Your task to perform on an android device: Search for hotels in Tokyo Image 0: 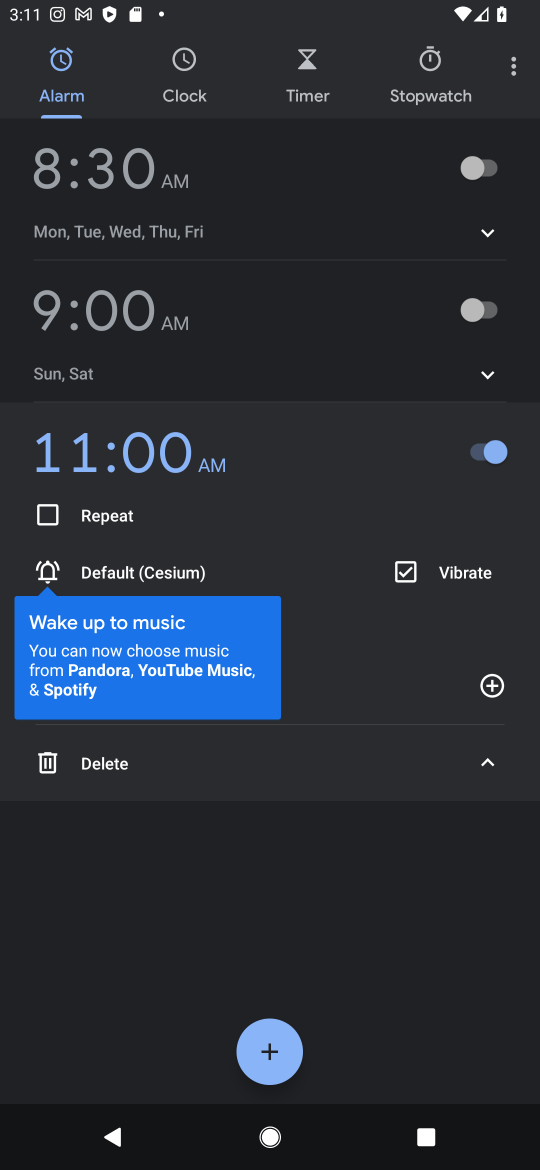
Step 0: press home button
Your task to perform on an android device: Search for hotels in Tokyo Image 1: 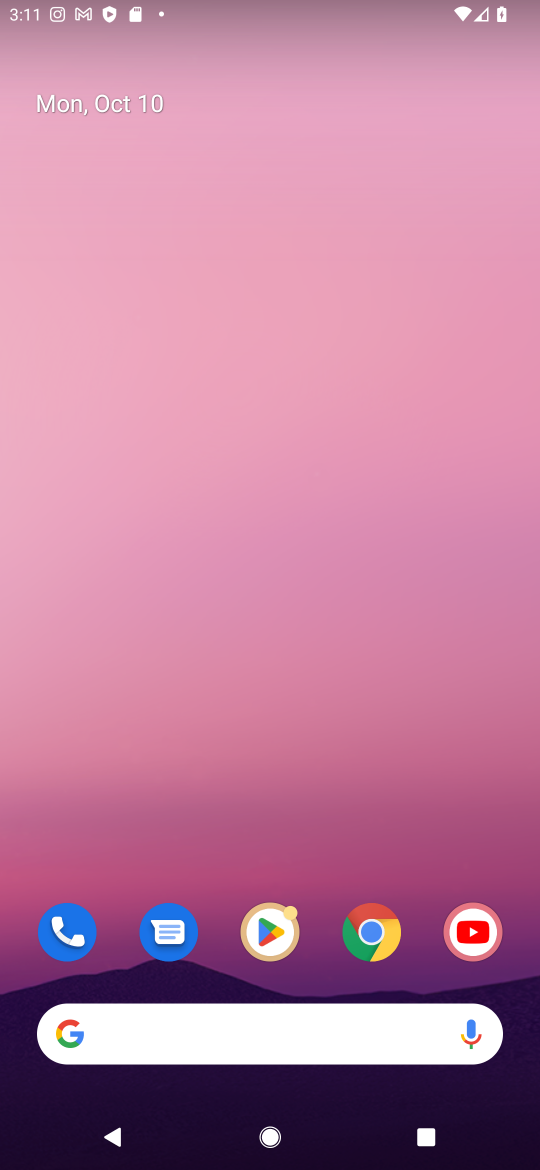
Step 1: click (295, 1038)
Your task to perform on an android device: Search for hotels in Tokyo Image 2: 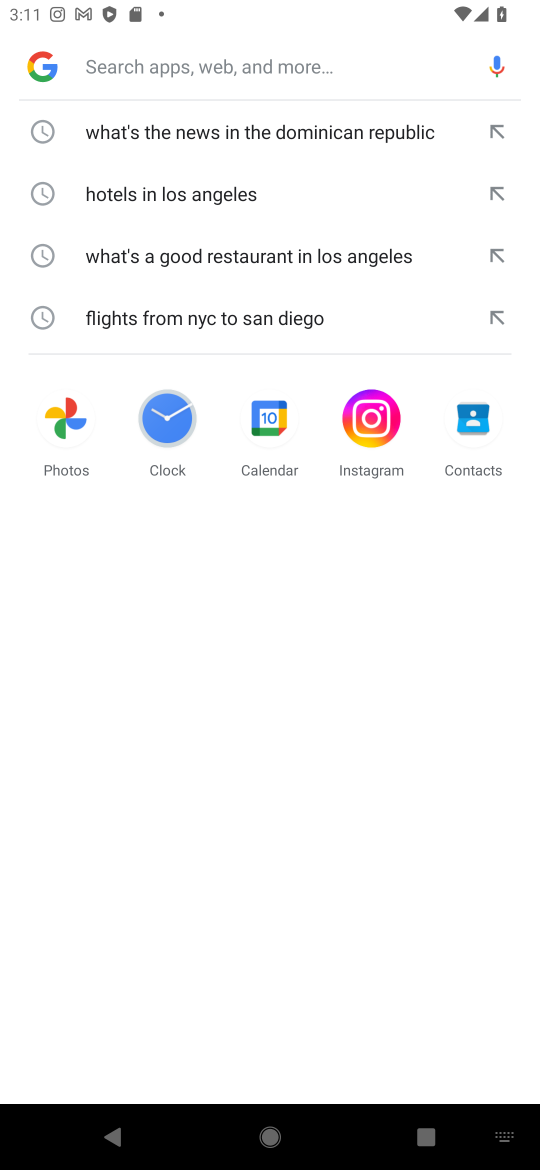
Step 2: press enter
Your task to perform on an android device: Search for hotels in Tokyo Image 3: 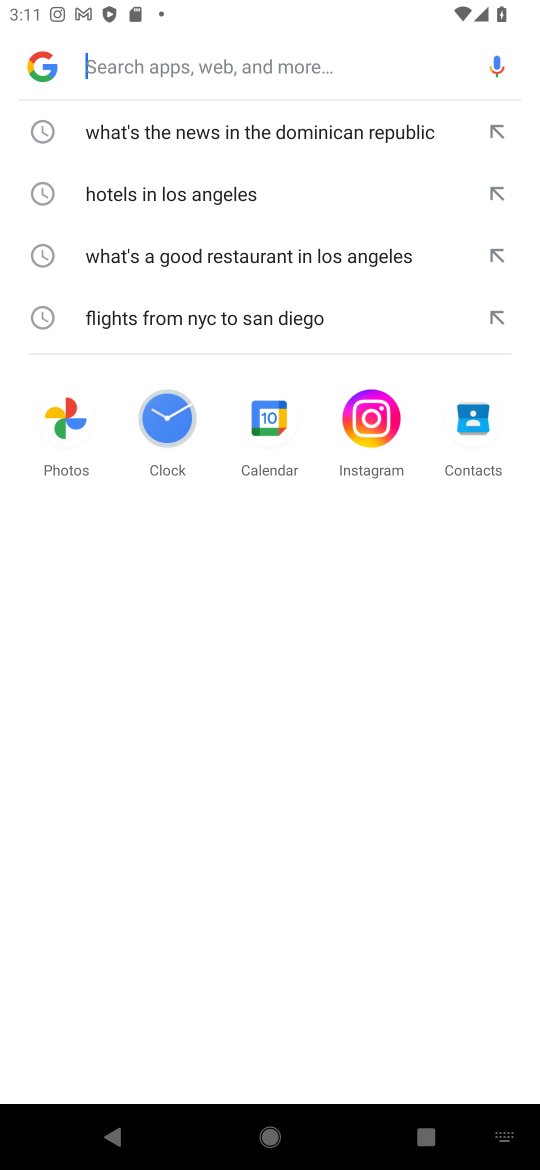
Step 3: type "hotels in Tokyo"
Your task to perform on an android device: Search for hotels in Tokyo Image 4: 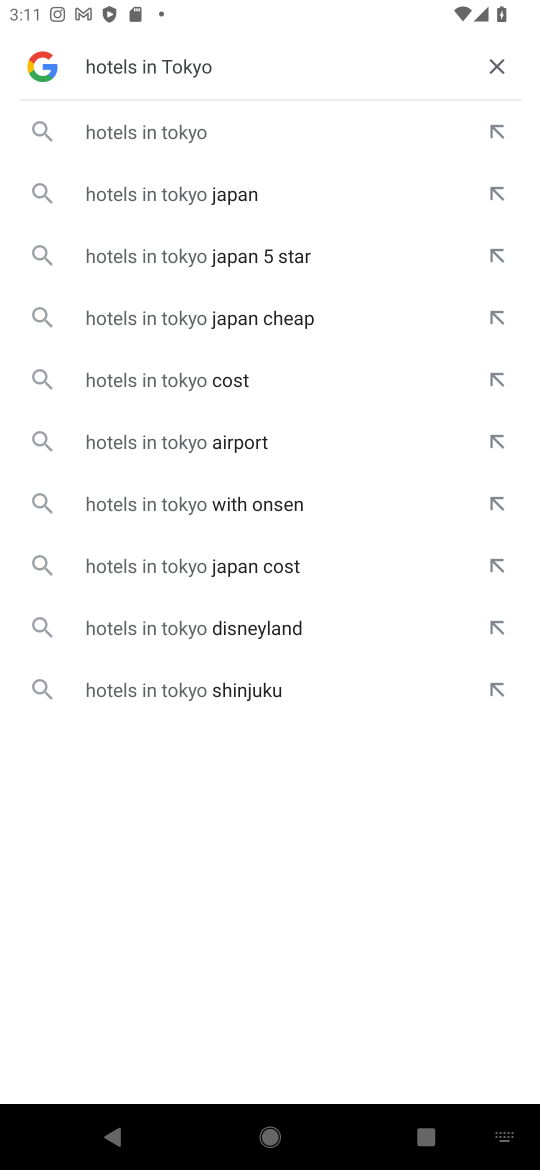
Step 4: press enter
Your task to perform on an android device: Search for hotels in Tokyo Image 5: 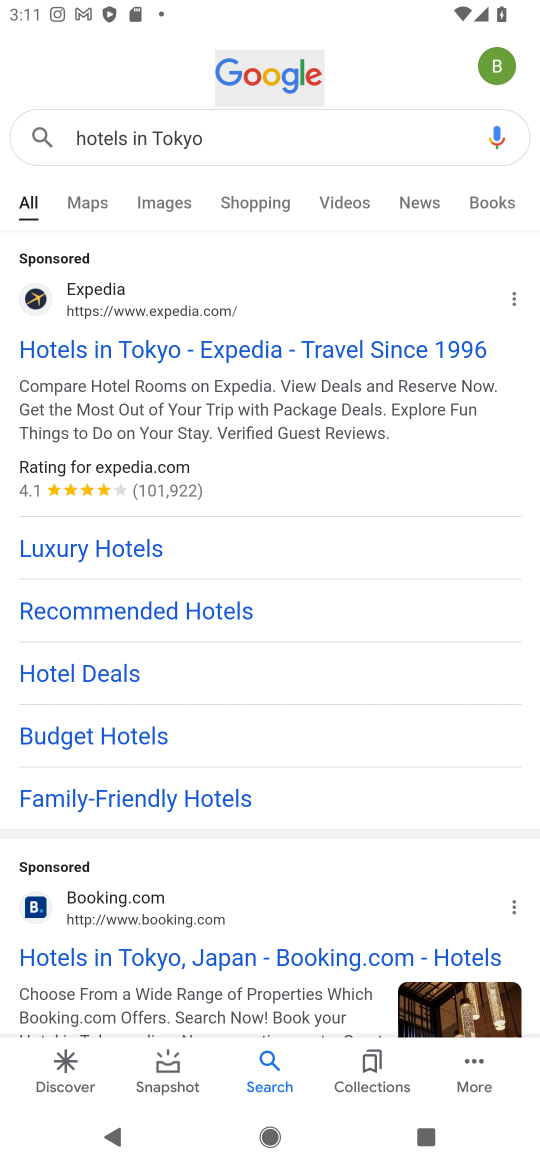
Step 5: task complete